Your task to perform on an android device: Open Wikipedia Image 0: 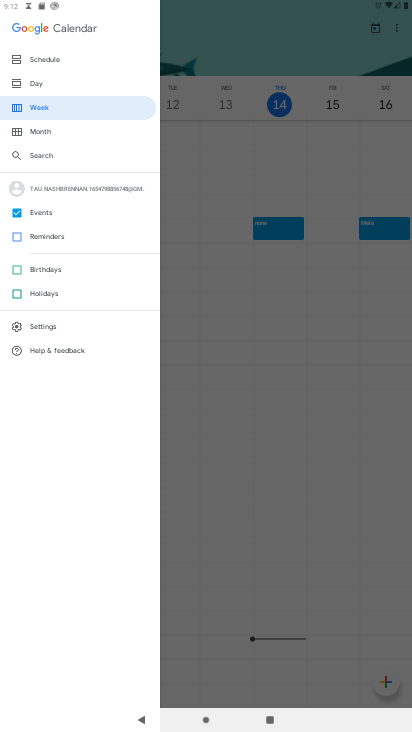
Step 0: press home button
Your task to perform on an android device: Open Wikipedia Image 1: 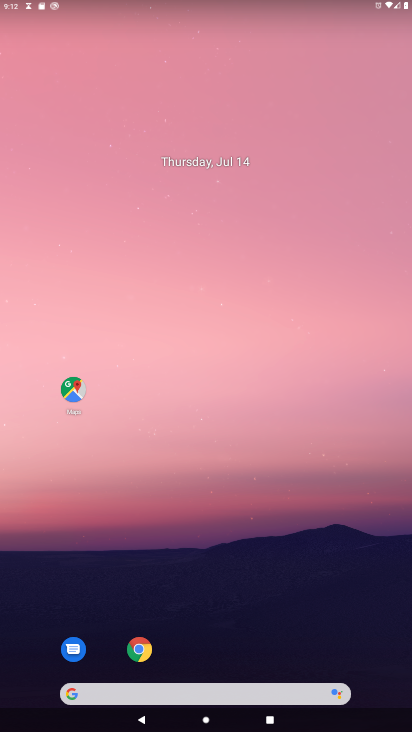
Step 1: click (140, 650)
Your task to perform on an android device: Open Wikipedia Image 2: 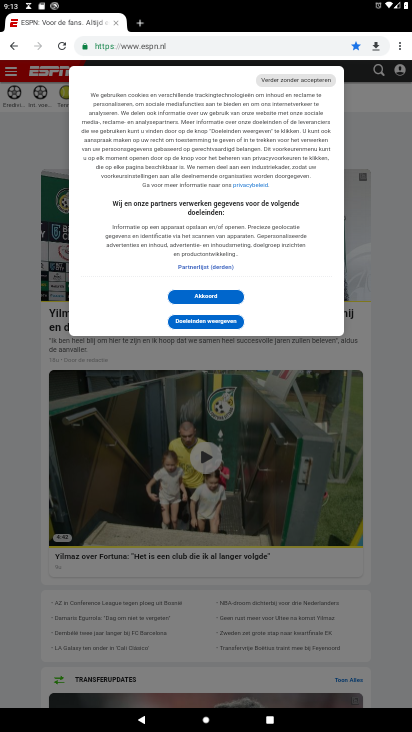
Step 2: click (160, 48)
Your task to perform on an android device: Open Wikipedia Image 3: 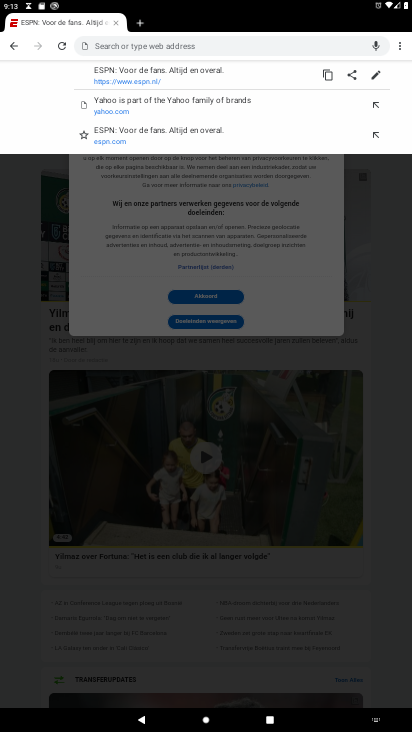
Step 3: type "wikipedia"
Your task to perform on an android device: Open Wikipedia Image 4: 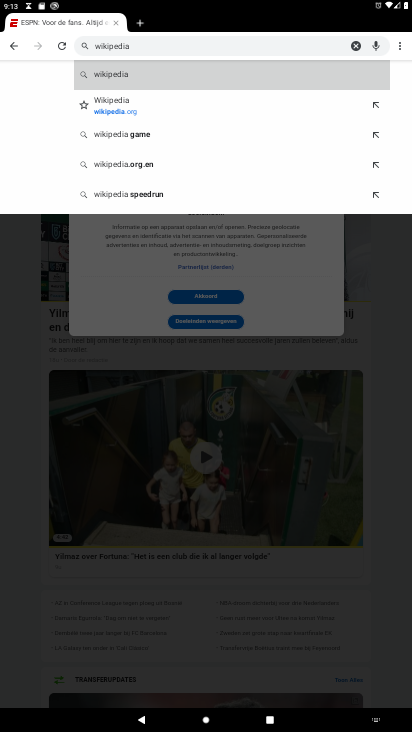
Step 4: click (126, 102)
Your task to perform on an android device: Open Wikipedia Image 5: 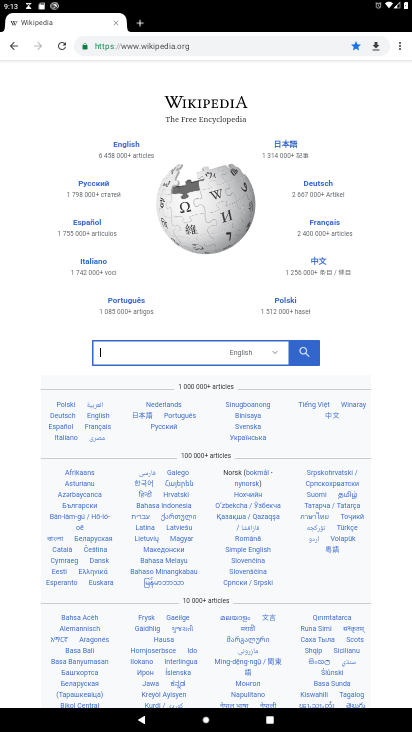
Step 5: task complete